Your task to perform on an android device: delete a single message in the gmail app Image 0: 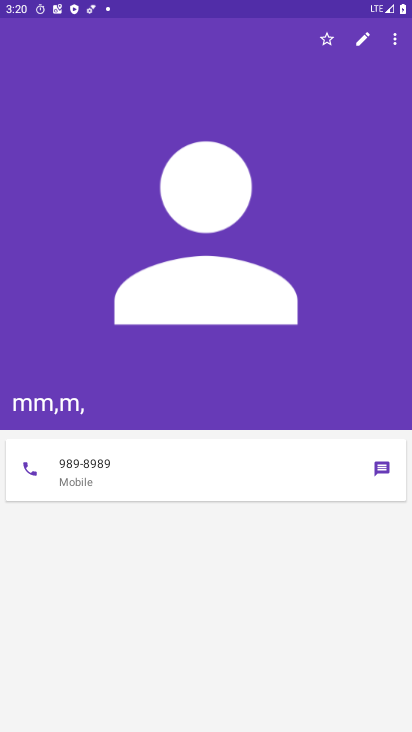
Step 0: press home button
Your task to perform on an android device: delete a single message in the gmail app Image 1: 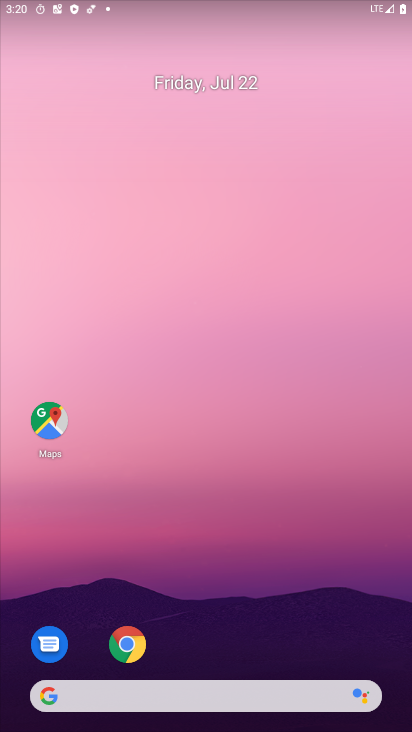
Step 1: drag from (209, 630) to (133, 10)
Your task to perform on an android device: delete a single message in the gmail app Image 2: 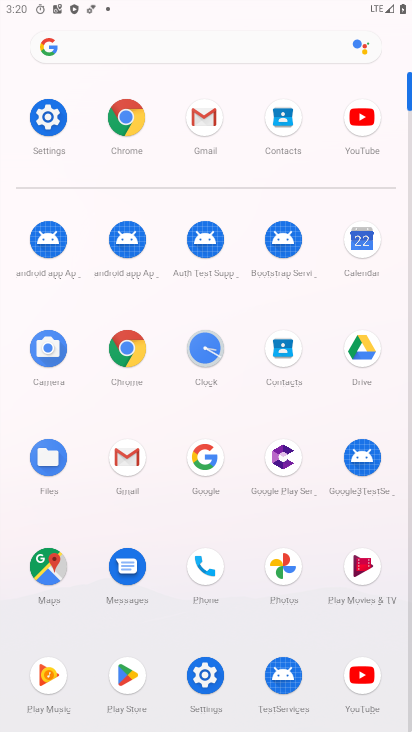
Step 2: click (205, 132)
Your task to perform on an android device: delete a single message in the gmail app Image 3: 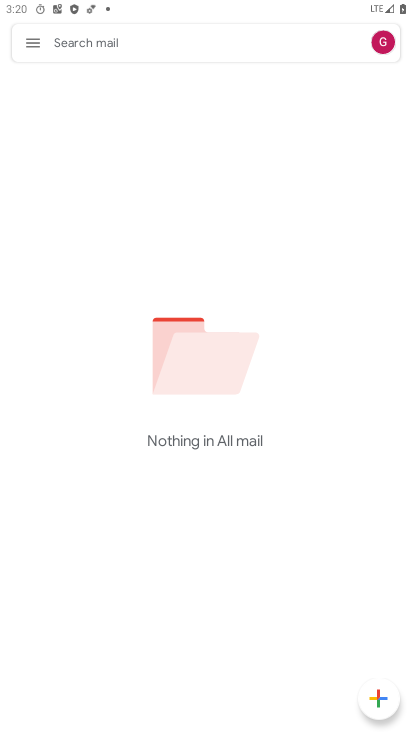
Step 3: click (32, 46)
Your task to perform on an android device: delete a single message in the gmail app Image 4: 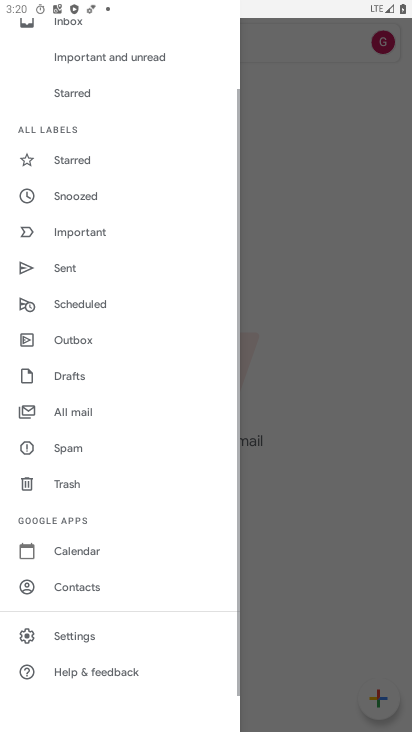
Step 4: click (81, 414)
Your task to perform on an android device: delete a single message in the gmail app Image 5: 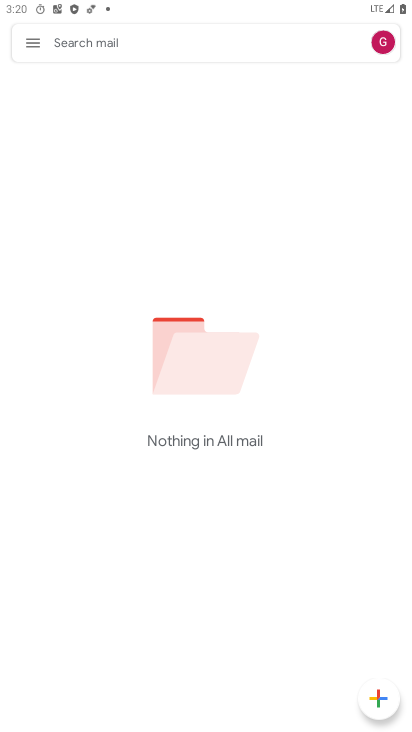
Step 5: task complete